Your task to perform on an android device: Open wifi settings Image 0: 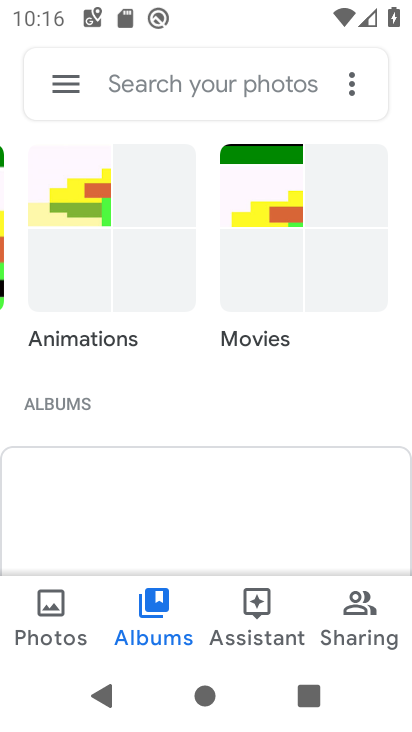
Step 0: press home button
Your task to perform on an android device: Open wifi settings Image 1: 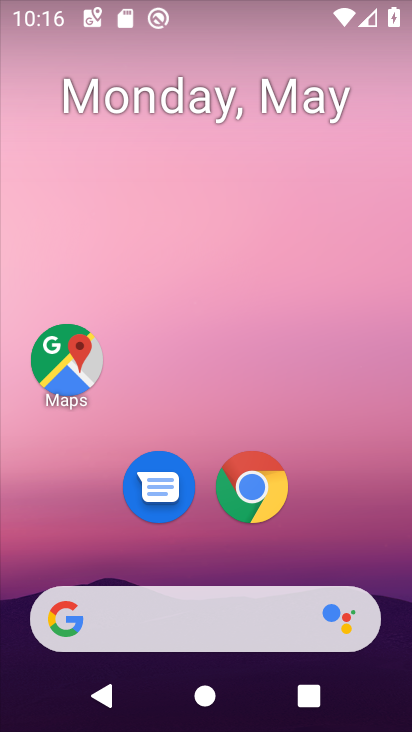
Step 1: drag from (331, 544) to (330, 102)
Your task to perform on an android device: Open wifi settings Image 2: 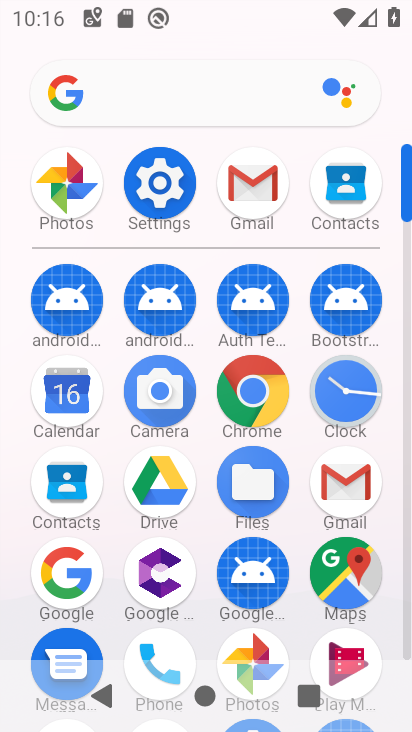
Step 2: click (172, 191)
Your task to perform on an android device: Open wifi settings Image 3: 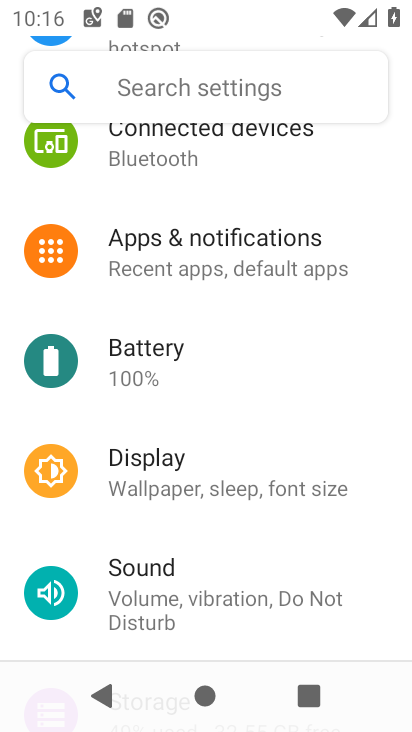
Step 3: drag from (237, 225) to (205, 552)
Your task to perform on an android device: Open wifi settings Image 4: 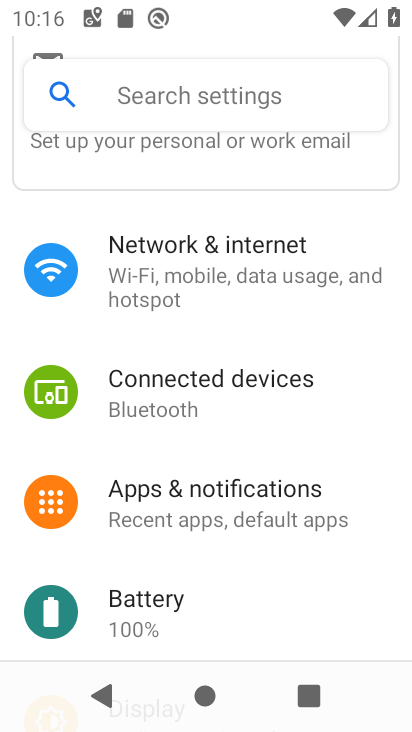
Step 4: click (316, 291)
Your task to perform on an android device: Open wifi settings Image 5: 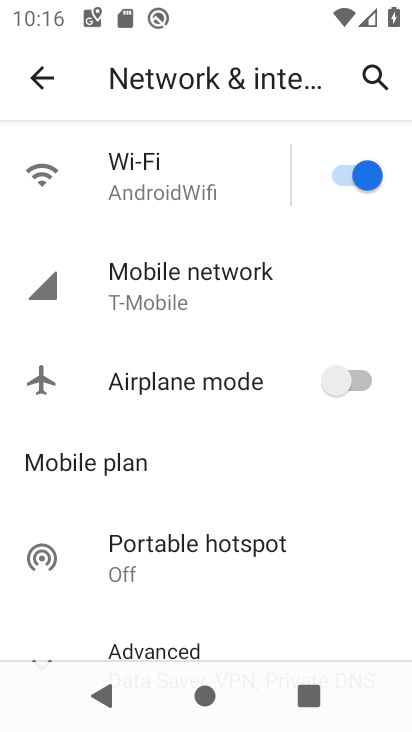
Step 5: click (128, 168)
Your task to perform on an android device: Open wifi settings Image 6: 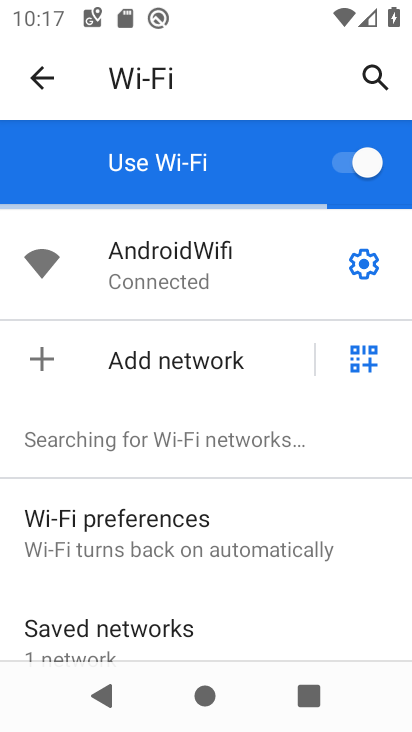
Step 6: task complete